Your task to perform on an android device: toggle notifications settings in the gmail app Image 0: 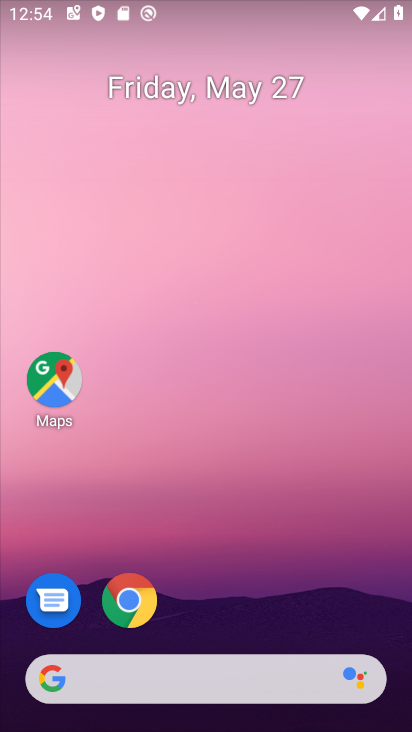
Step 0: drag from (227, 575) to (173, 170)
Your task to perform on an android device: toggle notifications settings in the gmail app Image 1: 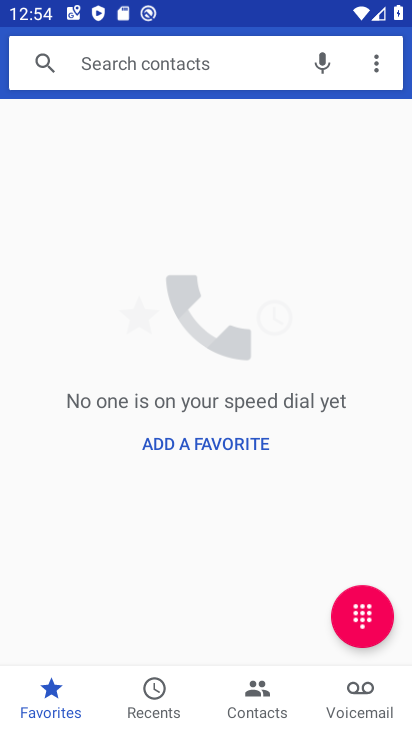
Step 1: press home button
Your task to perform on an android device: toggle notifications settings in the gmail app Image 2: 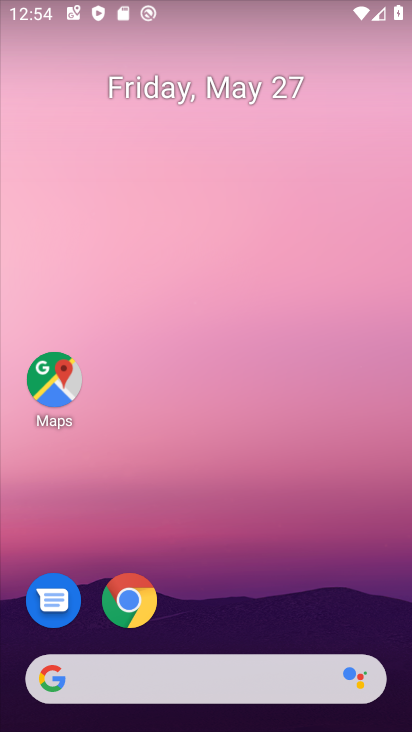
Step 2: drag from (333, 591) to (290, 73)
Your task to perform on an android device: toggle notifications settings in the gmail app Image 3: 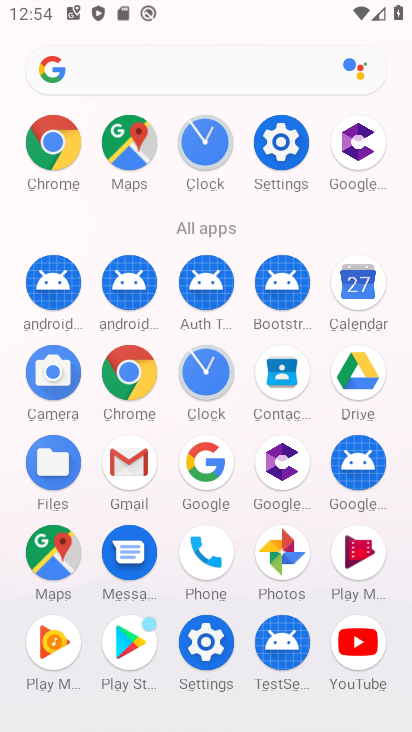
Step 3: click (141, 471)
Your task to perform on an android device: toggle notifications settings in the gmail app Image 4: 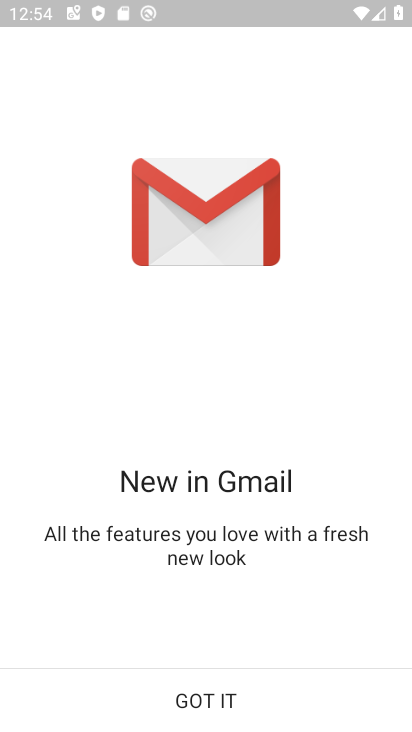
Step 4: click (183, 685)
Your task to perform on an android device: toggle notifications settings in the gmail app Image 5: 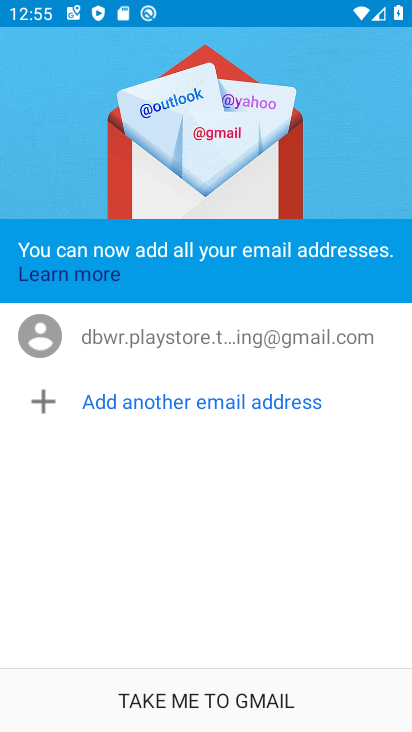
Step 5: click (187, 698)
Your task to perform on an android device: toggle notifications settings in the gmail app Image 6: 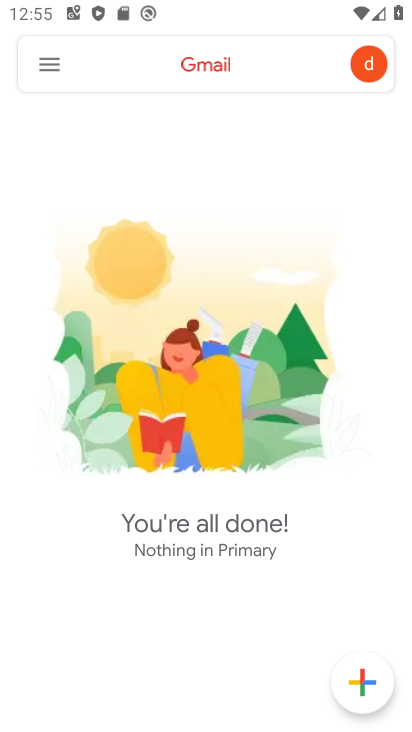
Step 6: click (43, 57)
Your task to perform on an android device: toggle notifications settings in the gmail app Image 7: 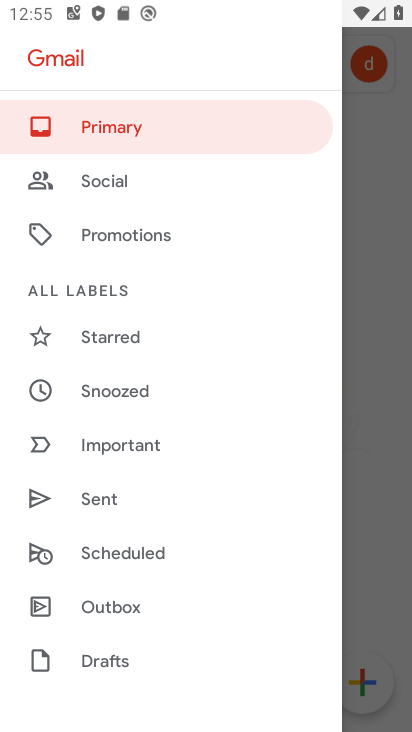
Step 7: drag from (188, 601) to (191, 391)
Your task to perform on an android device: toggle notifications settings in the gmail app Image 8: 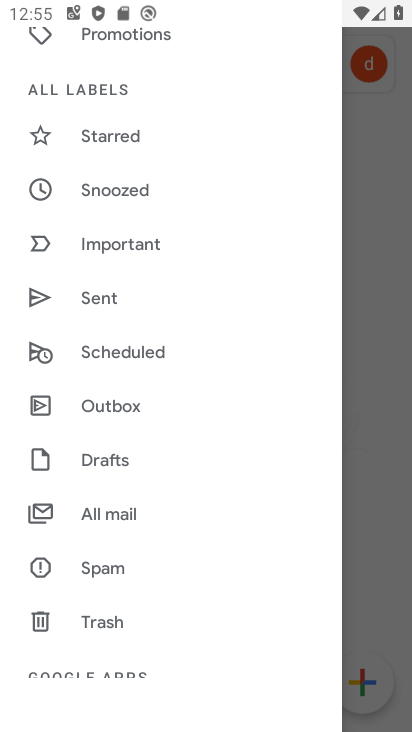
Step 8: drag from (180, 642) to (183, 515)
Your task to perform on an android device: toggle notifications settings in the gmail app Image 9: 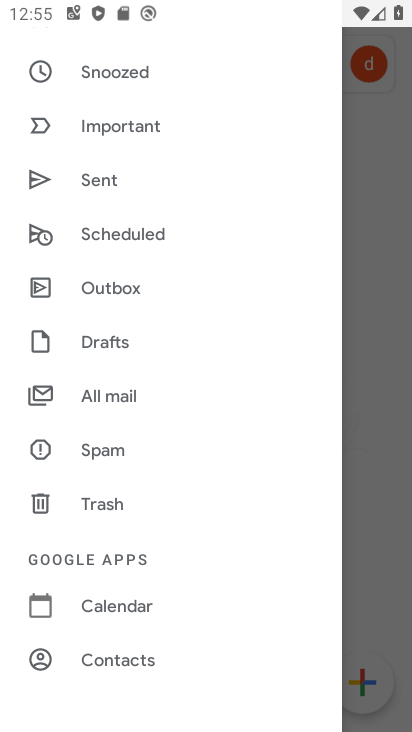
Step 9: drag from (194, 595) to (227, 389)
Your task to perform on an android device: toggle notifications settings in the gmail app Image 10: 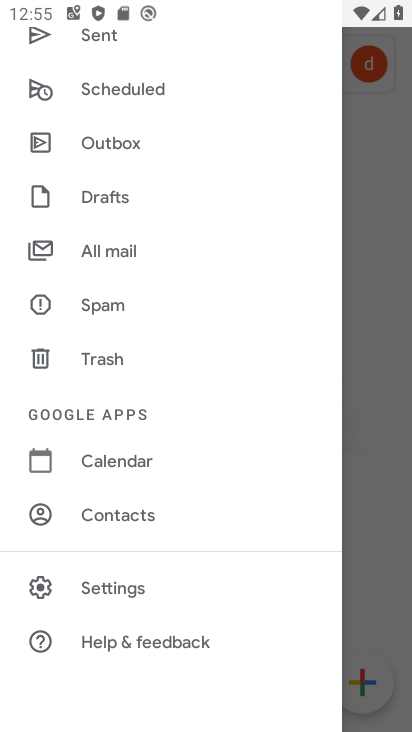
Step 10: click (85, 581)
Your task to perform on an android device: toggle notifications settings in the gmail app Image 11: 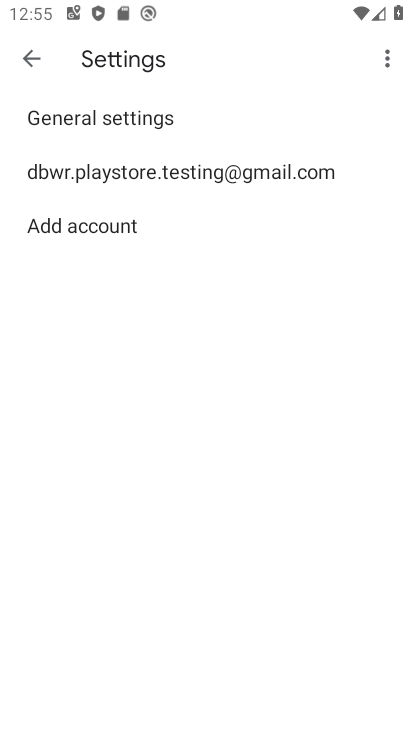
Step 11: click (185, 98)
Your task to perform on an android device: toggle notifications settings in the gmail app Image 12: 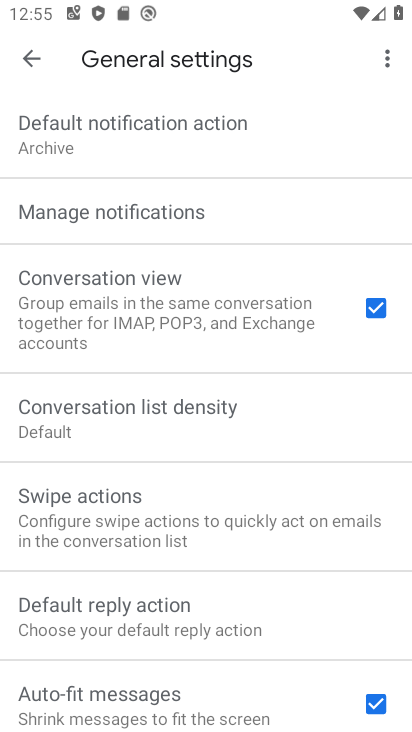
Step 12: drag from (267, 634) to (274, 62)
Your task to perform on an android device: toggle notifications settings in the gmail app Image 13: 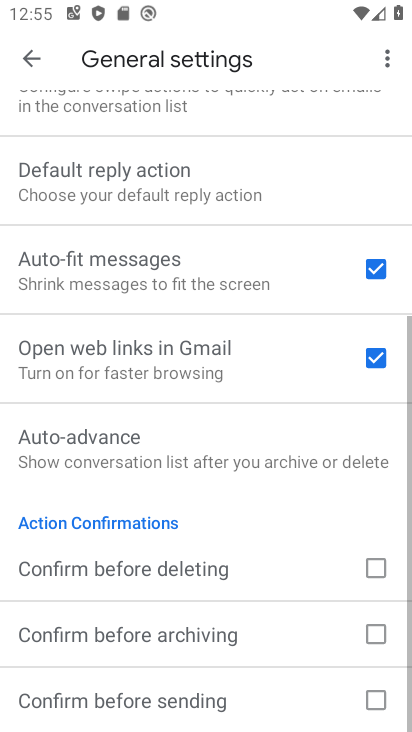
Step 13: drag from (176, 505) to (153, 5)
Your task to perform on an android device: toggle notifications settings in the gmail app Image 14: 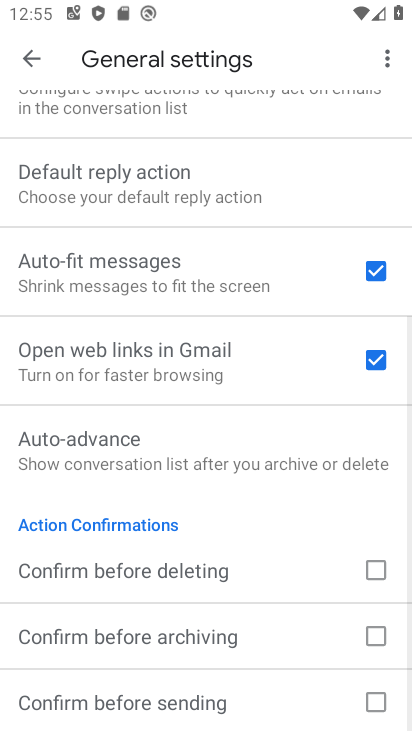
Step 14: drag from (210, 307) to (158, 580)
Your task to perform on an android device: toggle notifications settings in the gmail app Image 15: 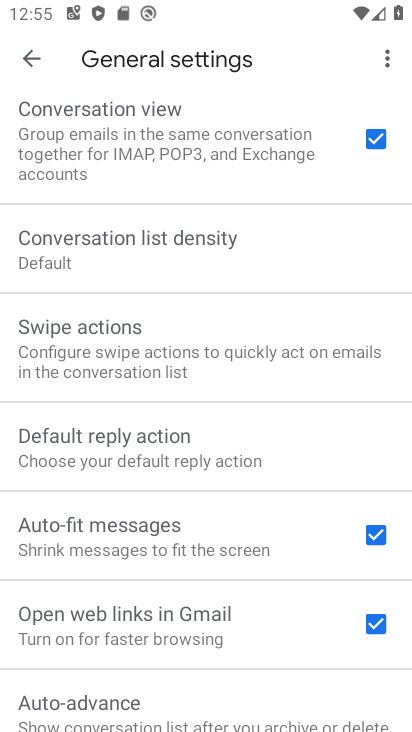
Step 15: drag from (200, 210) to (182, 693)
Your task to perform on an android device: toggle notifications settings in the gmail app Image 16: 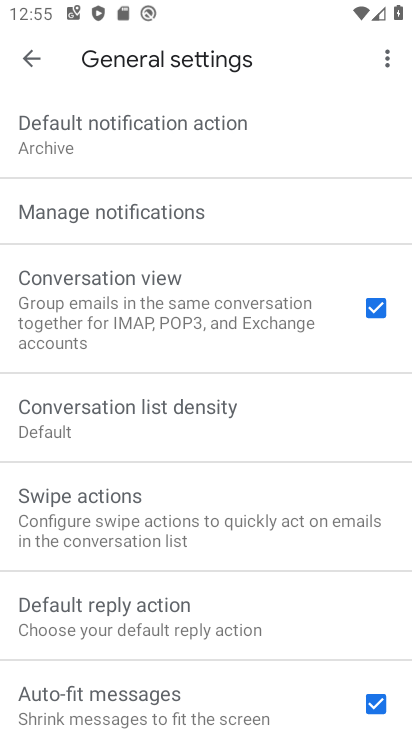
Step 16: click (220, 224)
Your task to perform on an android device: toggle notifications settings in the gmail app Image 17: 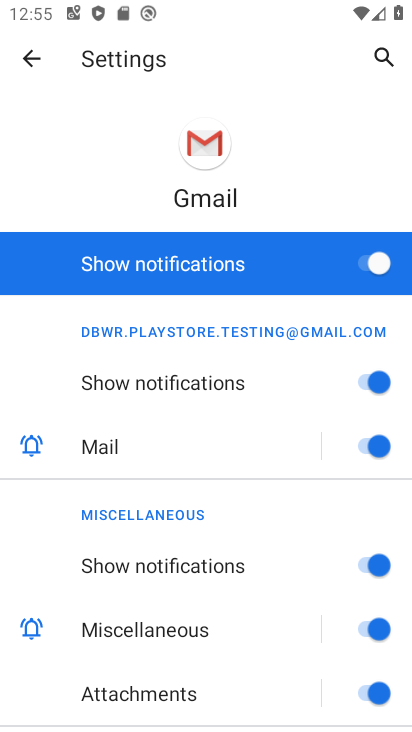
Step 17: click (360, 248)
Your task to perform on an android device: toggle notifications settings in the gmail app Image 18: 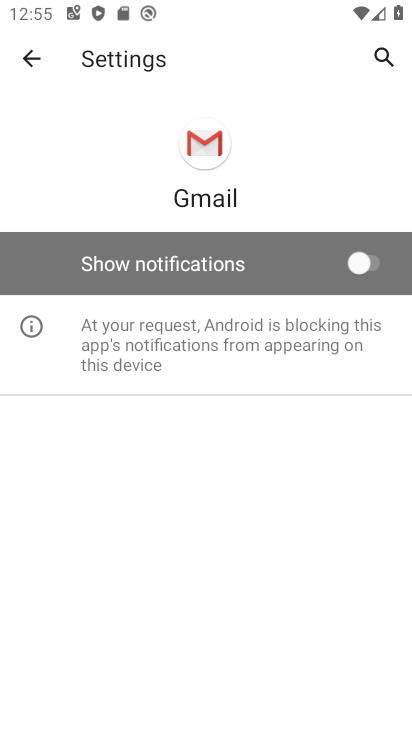
Step 18: task complete